Your task to perform on an android device: toggle improve location accuracy Image 0: 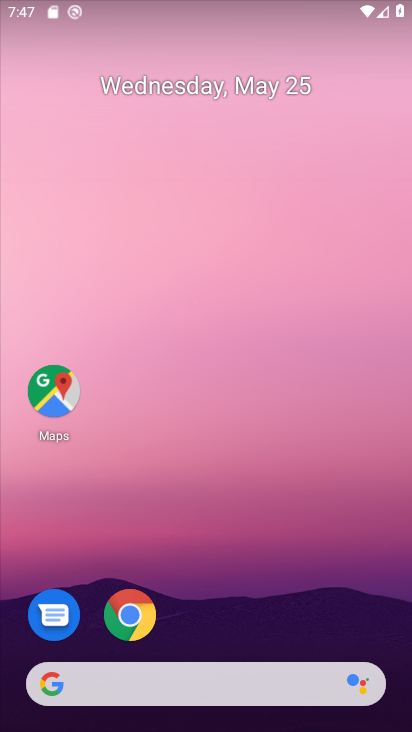
Step 0: drag from (220, 540) to (15, 25)
Your task to perform on an android device: toggle improve location accuracy Image 1: 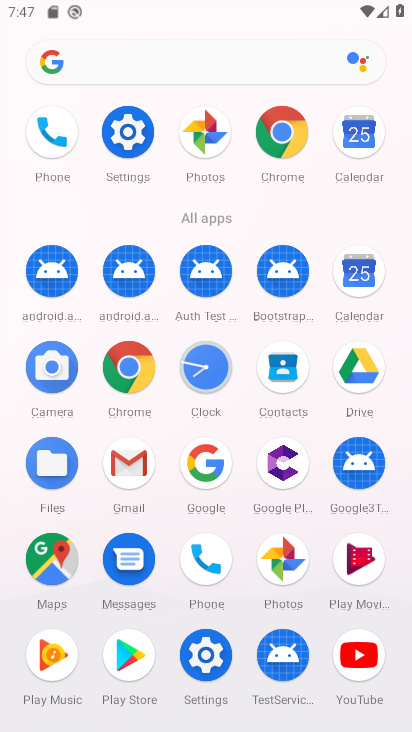
Step 1: drag from (11, 539) to (3, 239)
Your task to perform on an android device: toggle improve location accuracy Image 2: 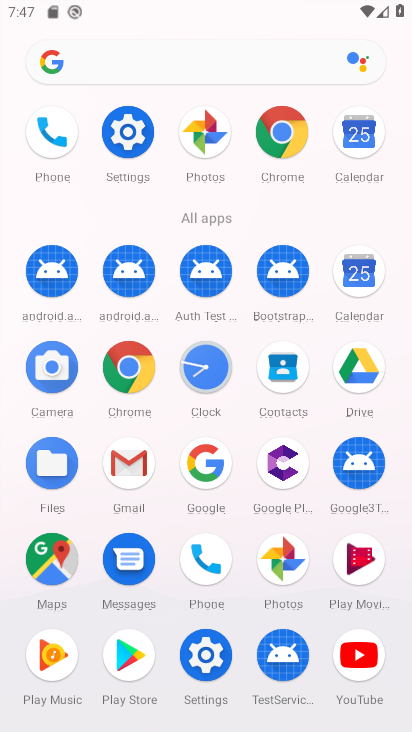
Step 2: click (206, 655)
Your task to perform on an android device: toggle improve location accuracy Image 3: 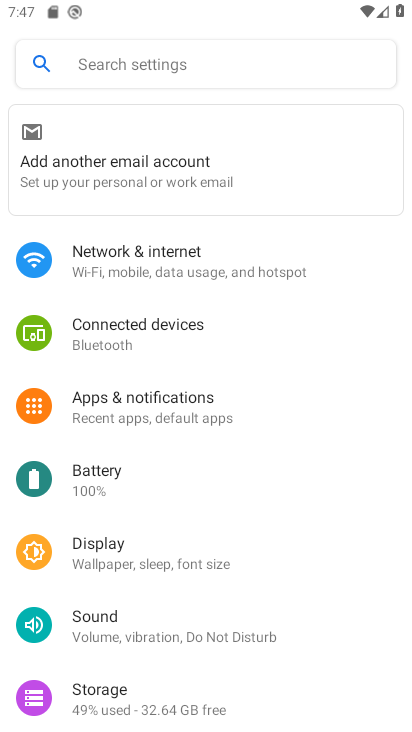
Step 3: drag from (256, 581) to (237, 238)
Your task to perform on an android device: toggle improve location accuracy Image 4: 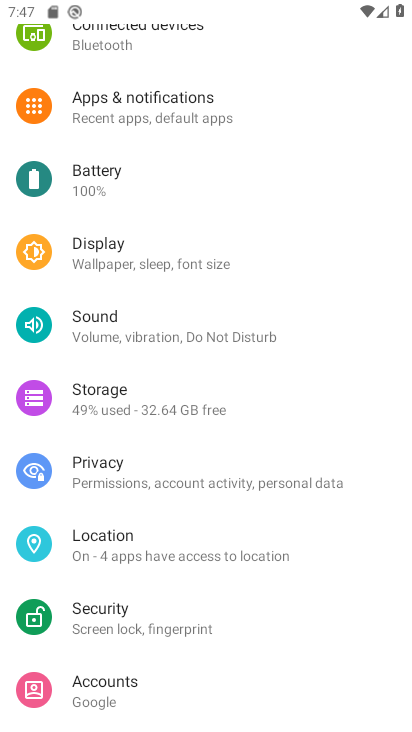
Step 4: click (160, 538)
Your task to perform on an android device: toggle improve location accuracy Image 5: 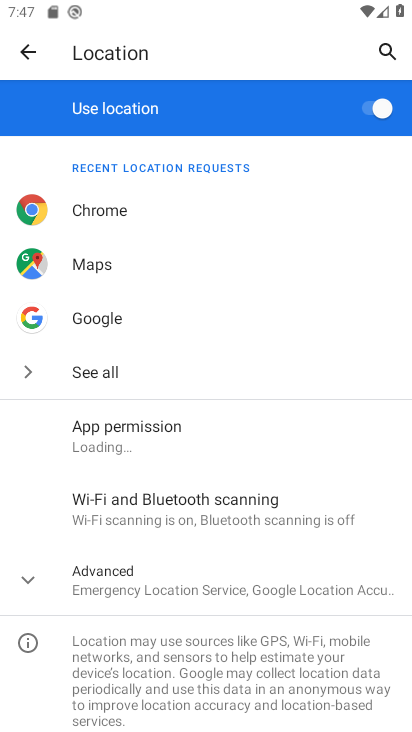
Step 5: click (25, 568)
Your task to perform on an android device: toggle improve location accuracy Image 6: 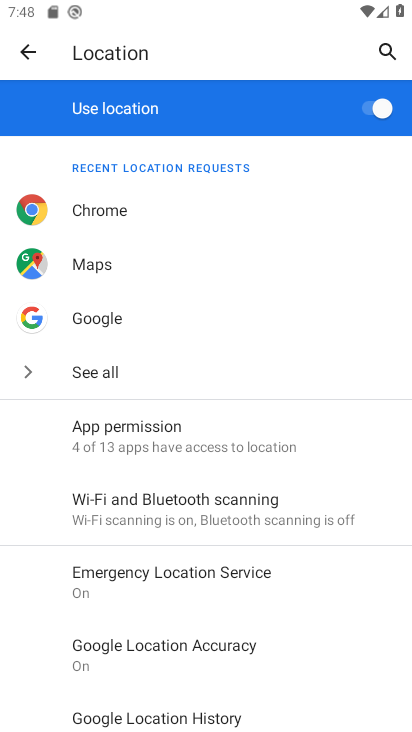
Step 6: drag from (305, 555) to (303, 225)
Your task to perform on an android device: toggle improve location accuracy Image 7: 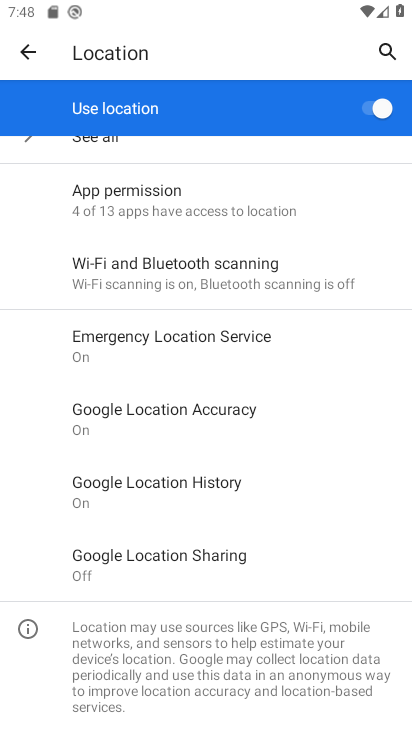
Step 7: click (198, 410)
Your task to perform on an android device: toggle improve location accuracy Image 8: 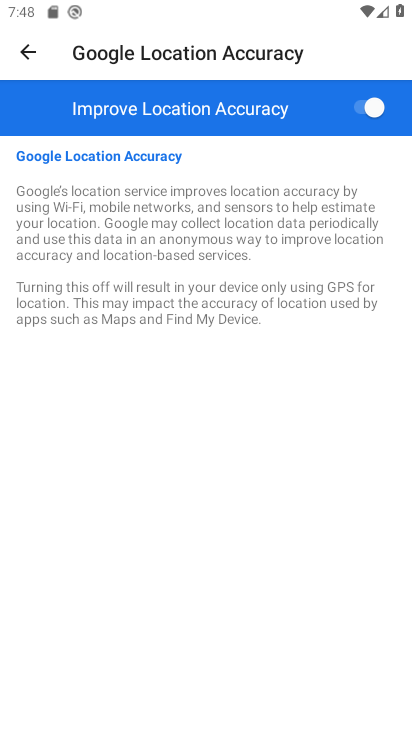
Step 8: click (370, 115)
Your task to perform on an android device: toggle improve location accuracy Image 9: 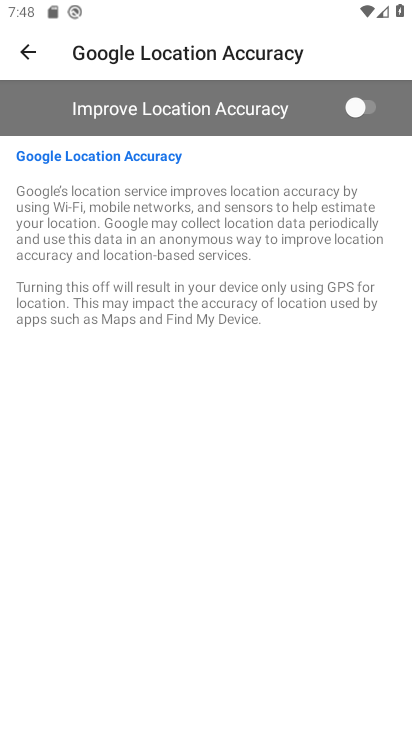
Step 9: task complete